Your task to perform on an android device: turn on translation in the chrome app Image 0: 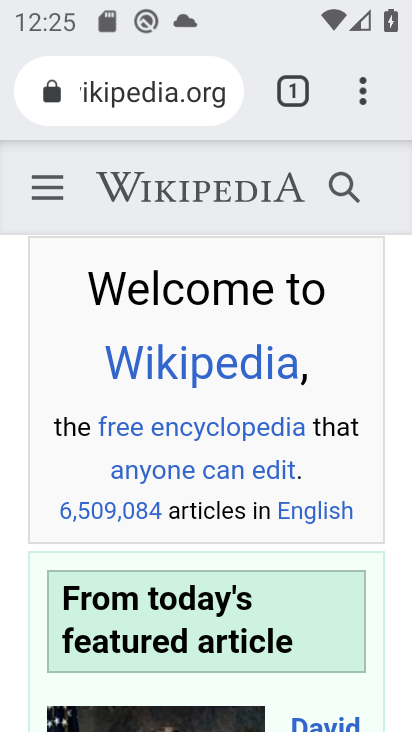
Step 0: click (367, 100)
Your task to perform on an android device: turn on translation in the chrome app Image 1: 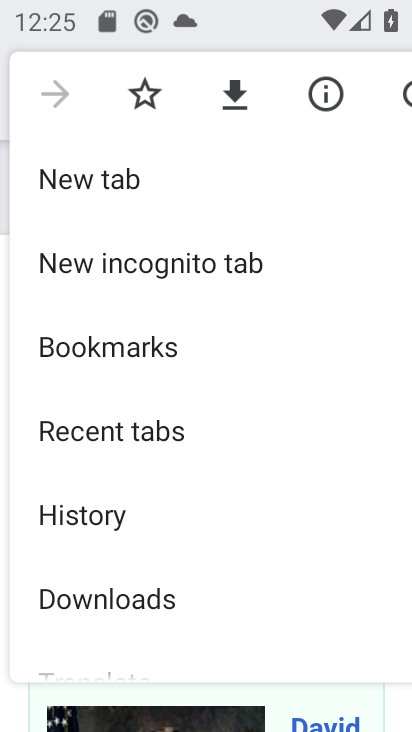
Step 1: drag from (163, 575) to (179, 165)
Your task to perform on an android device: turn on translation in the chrome app Image 2: 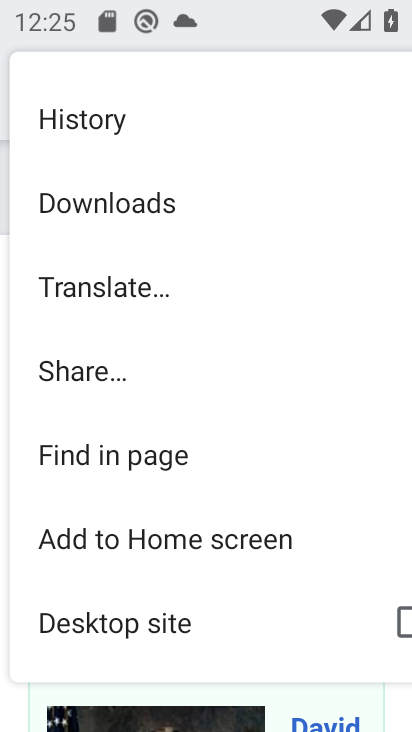
Step 2: drag from (108, 644) to (159, 298)
Your task to perform on an android device: turn on translation in the chrome app Image 3: 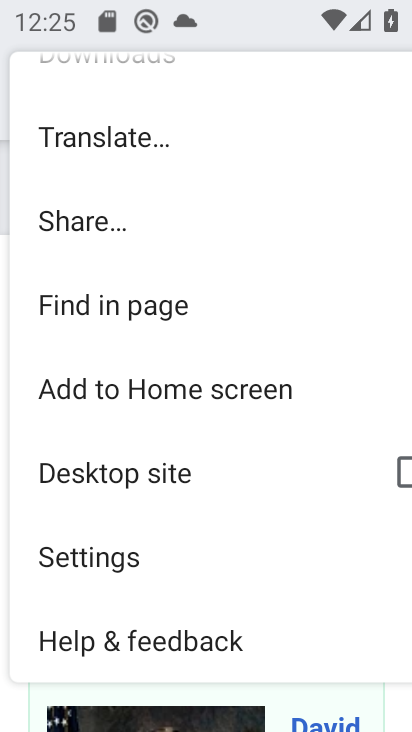
Step 3: click (82, 579)
Your task to perform on an android device: turn on translation in the chrome app Image 4: 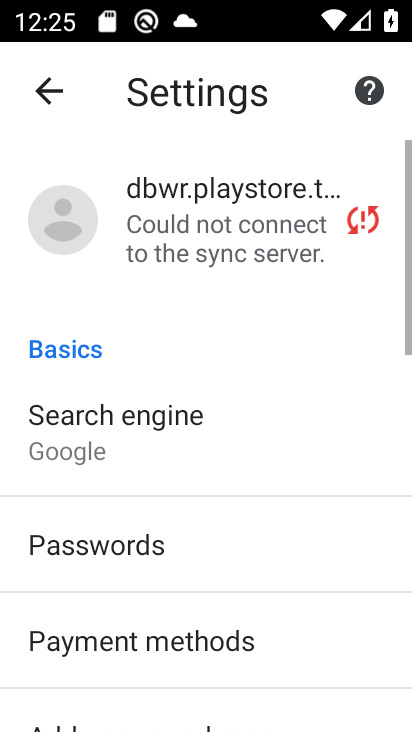
Step 4: drag from (184, 598) to (281, 189)
Your task to perform on an android device: turn on translation in the chrome app Image 5: 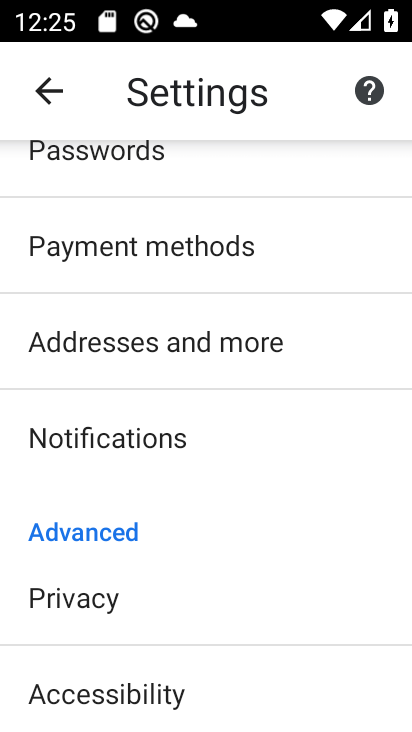
Step 5: drag from (177, 605) to (219, 313)
Your task to perform on an android device: turn on translation in the chrome app Image 6: 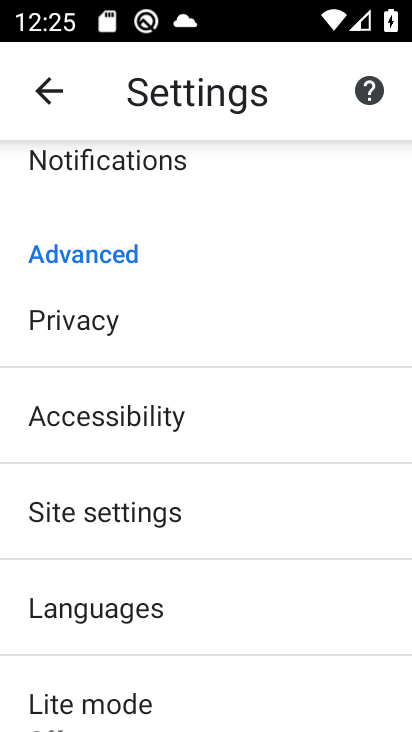
Step 6: click (112, 608)
Your task to perform on an android device: turn on translation in the chrome app Image 7: 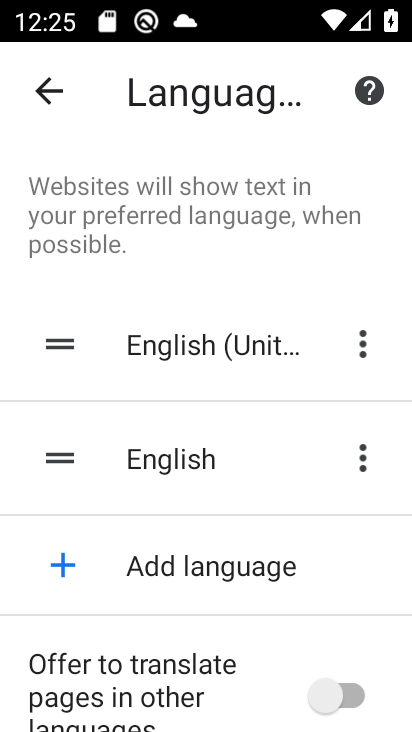
Step 7: click (340, 701)
Your task to perform on an android device: turn on translation in the chrome app Image 8: 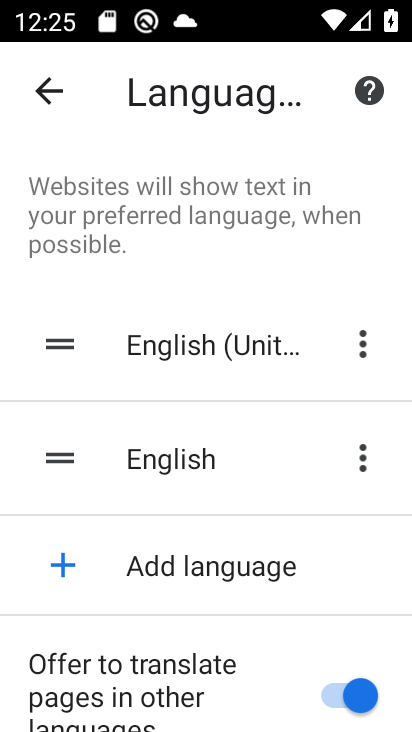
Step 8: task complete